Your task to perform on an android device: turn off notifications settings in the gmail app Image 0: 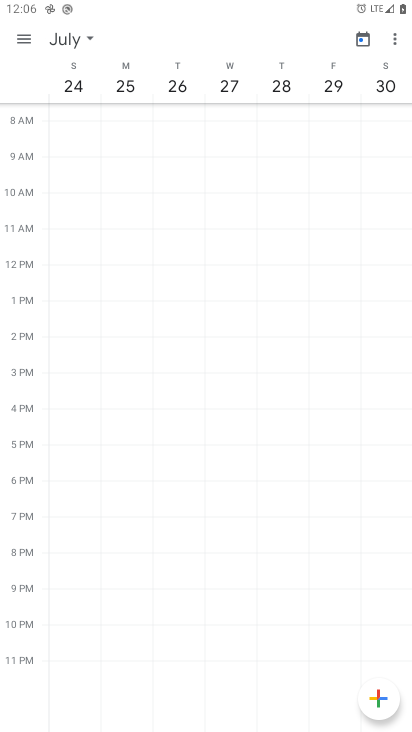
Step 0: press home button
Your task to perform on an android device: turn off notifications settings in the gmail app Image 1: 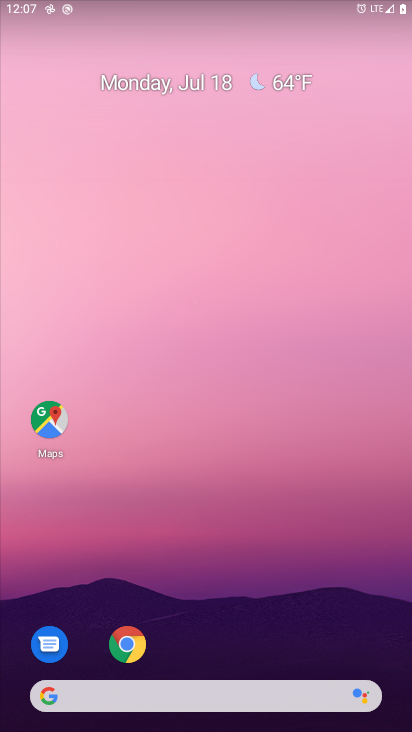
Step 1: press home button
Your task to perform on an android device: turn off notifications settings in the gmail app Image 2: 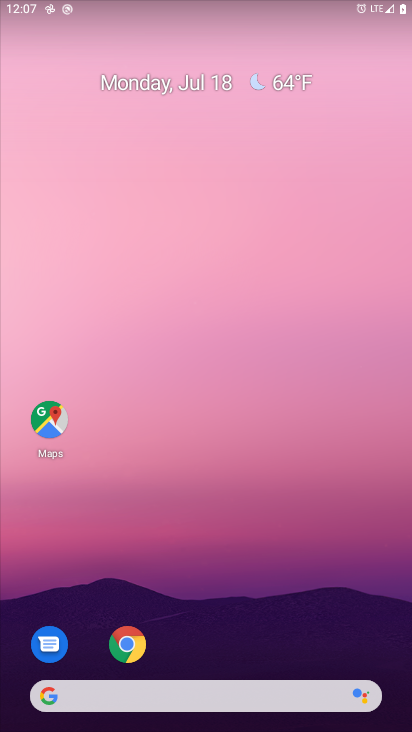
Step 2: drag from (311, 596) to (324, 2)
Your task to perform on an android device: turn off notifications settings in the gmail app Image 3: 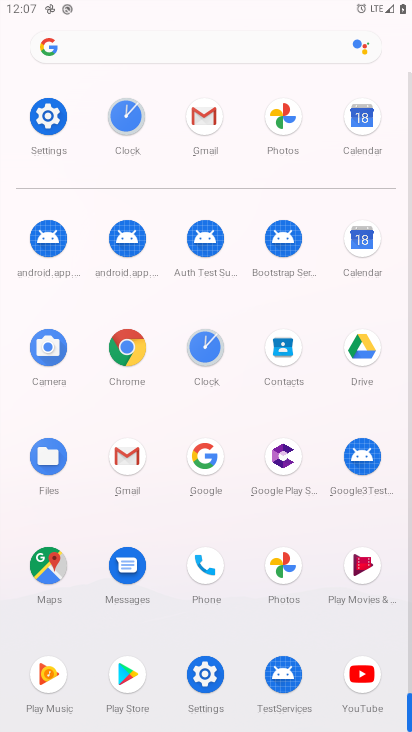
Step 3: click (202, 116)
Your task to perform on an android device: turn off notifications settings in the gmail app Image 4: 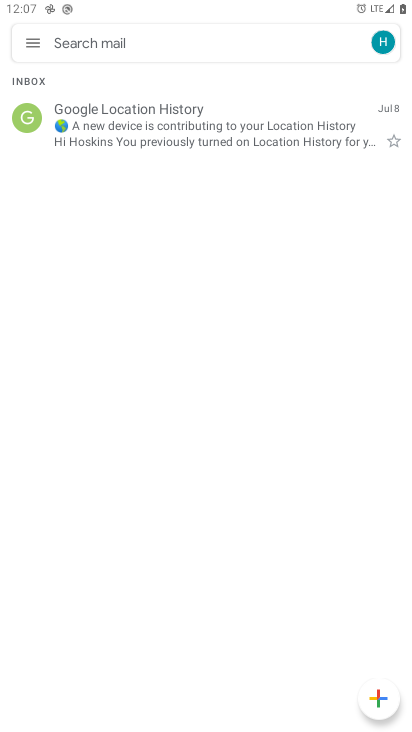
Step 4: click (34, 46)
Your task to perform on an android device: turn off notifications settings in the gmail app Image 5: 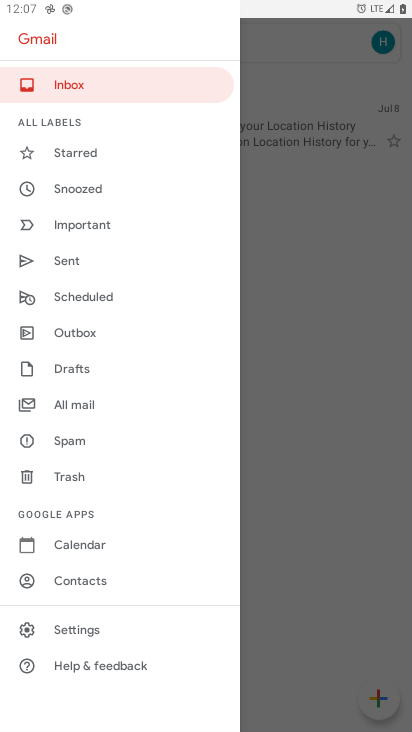
Step 5: click (68, 624)
Your task to perform on an android device: turn off notifications settings in the gmail app Image 6: 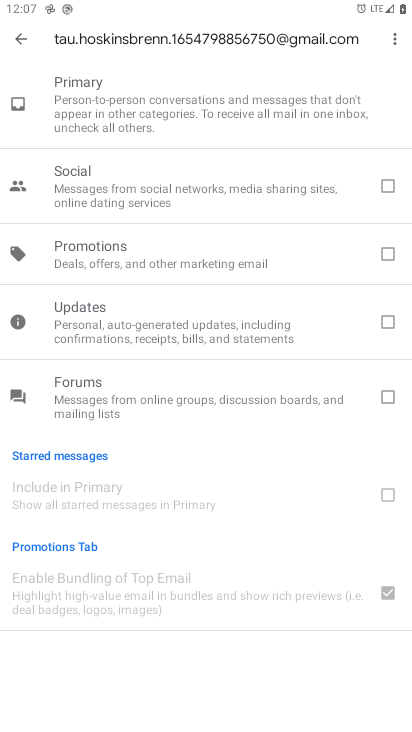
Step 6: click (22, 36)
Your task to perform on an android device: turn off notifications settings in the gmail app Image 7: 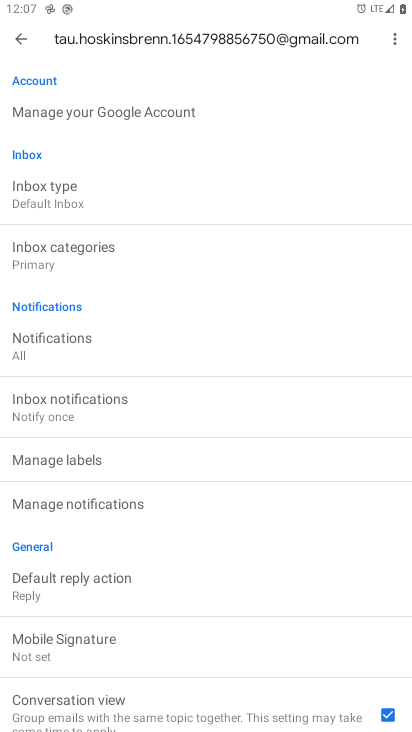
Step 7: click (58, 509)
Your task to perform on an android device: turn off notifications settings in the gmail app Image 8: 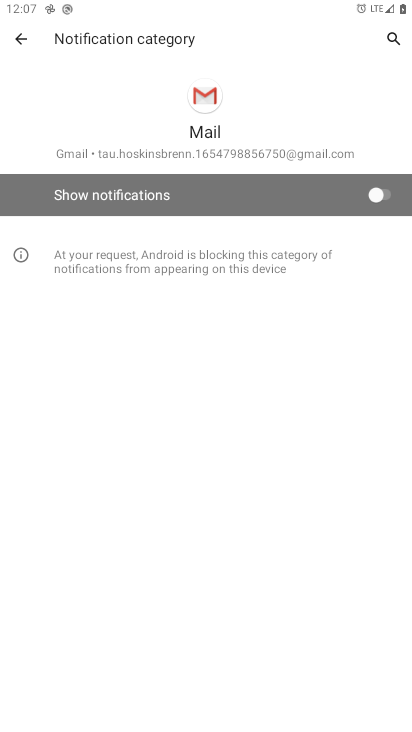
Step 8: task complete